Your task to perform on an android device: Show me popular videos on Youtube Image 0: 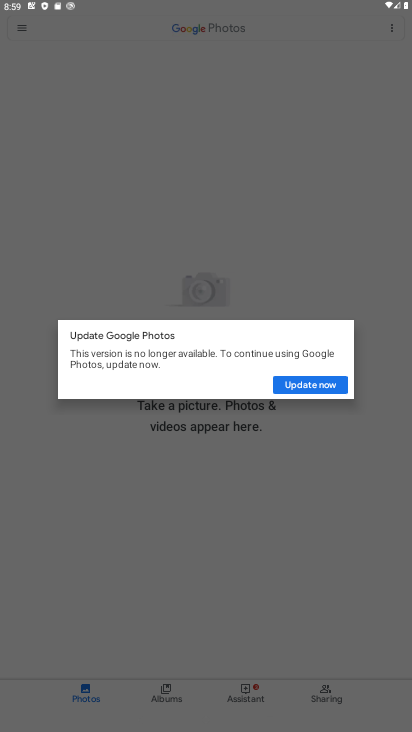
Step 0: press home button
Your task to perform on an android device: Show me popular videos on Youtube Image 1: 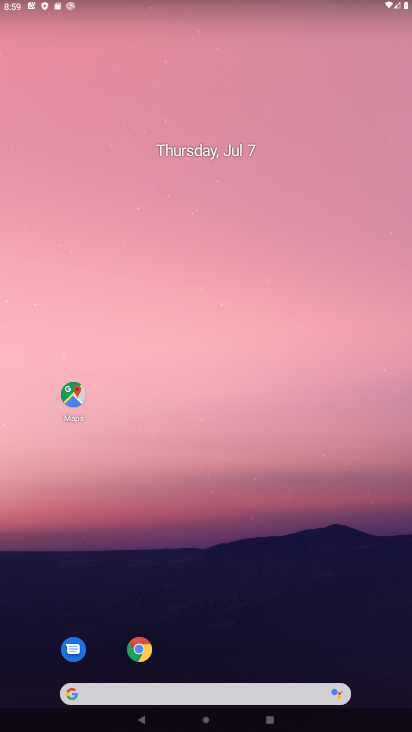
Step 1: drag from (225, 703) to (198, 26)
Your task to perform on an android device: Show me popular videos on Youtube Image 2: 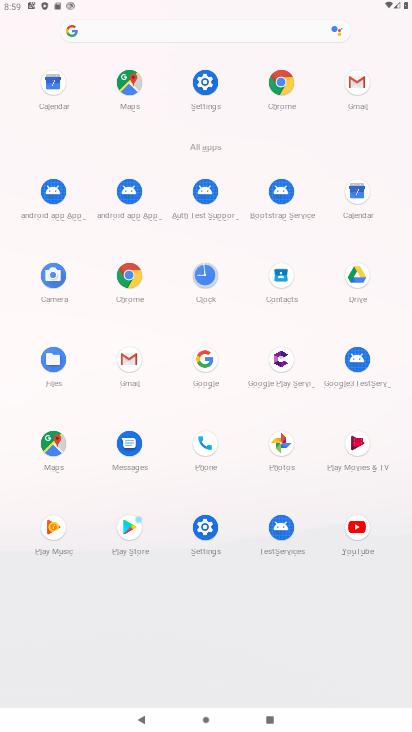
Step 2: click (353, 528)
Your task to perform on an android device: Show me popular videos on Youtube Image 3: 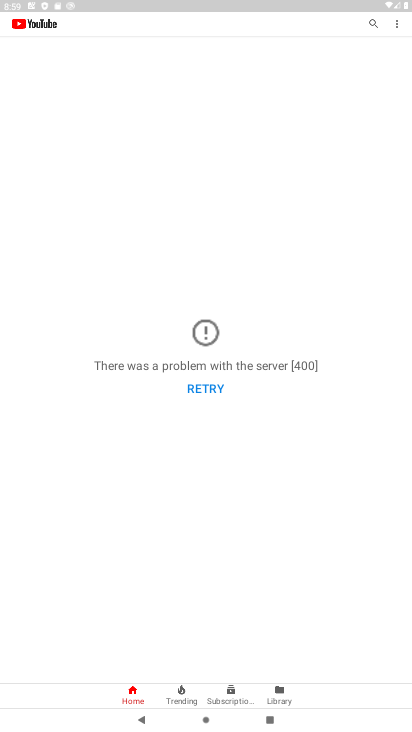
Step 3: task complete